Your task to perform on an android device: Open Chrome and go to settings Image 0: 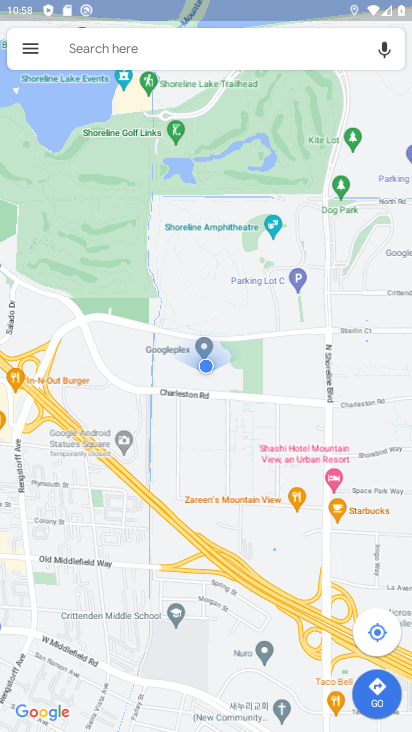
Step 0: press home button
Your task to perform on an android device: Open Chrome and go to settings Image 1: 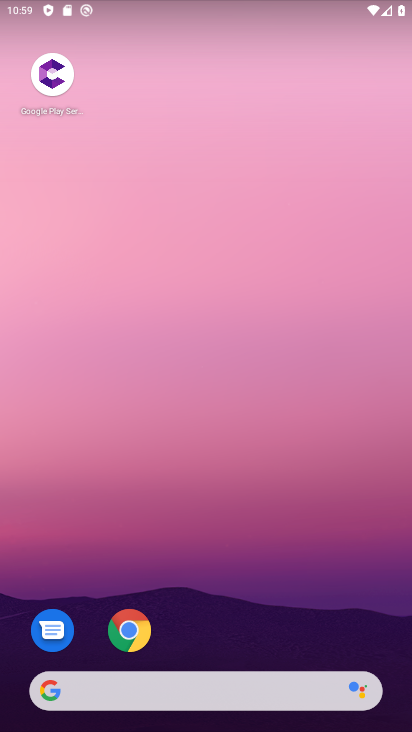
Step 1: click (135, 632)
Your task to perform on an android device: Open Chrome and go to settings Image 2: 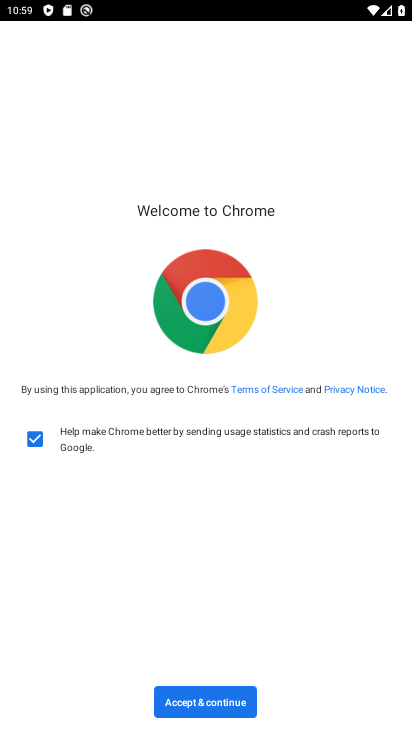
Step 2: click (203, 702)
Your task to perform on an android device: Open Chrome and go to settings Image 3: 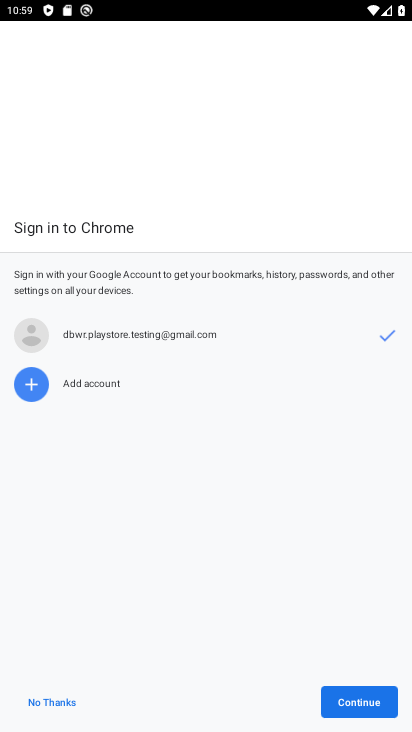
Step 3: click (382, 694)
Your task to perform on an android device: Open Chrome and go to settings Image 4: 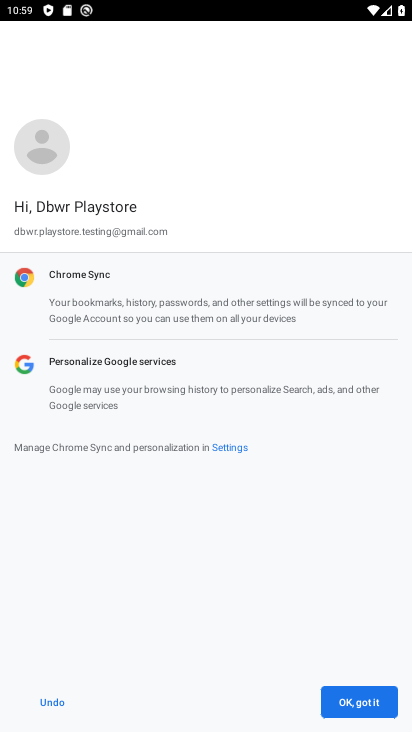
Step 4: click (379, 699)
Your task to perform on an android device: Open Chrome and go to settings Image 5: 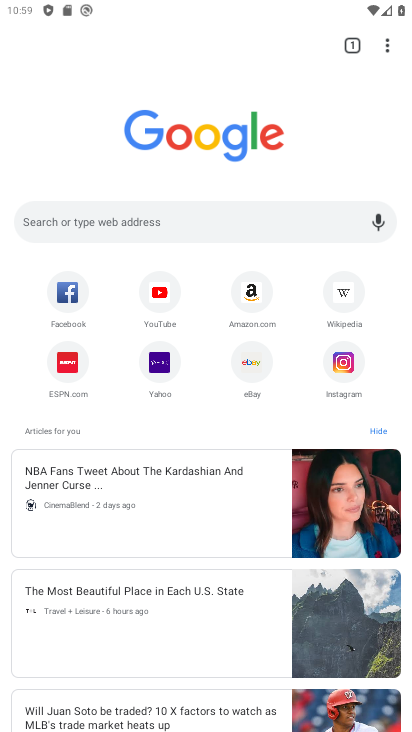
Step 5: click (388, 49)
Your task to perform on an android device: Open Chrome and go to settings Image 6: 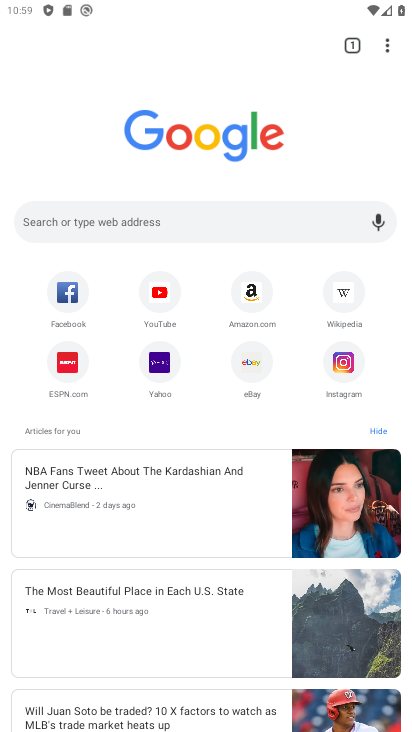
Step 6: click (389, 35)
Your task to perform on an android device: Open Chrome and go to settings Image 7: 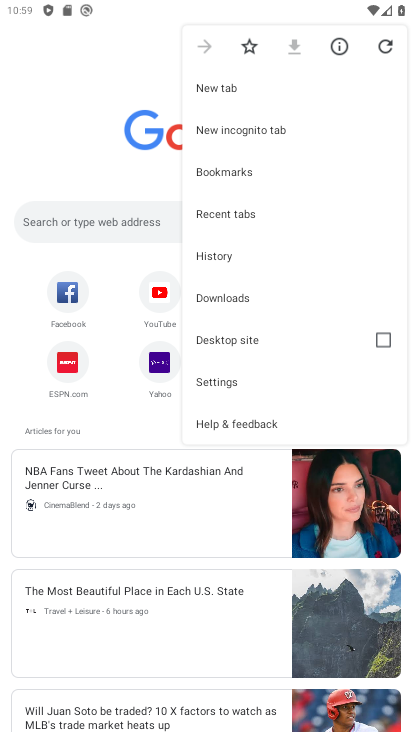
Step 7: click (218, 379)
Your task to perform on an android device: Open Chrome and go to settings Image 8: 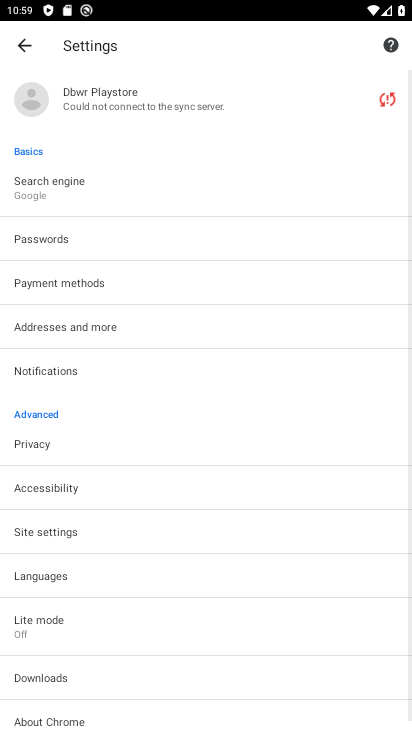
Step 8: task complete